Your task to perform on an android device: turn off javascript in the chrome app Image 0: 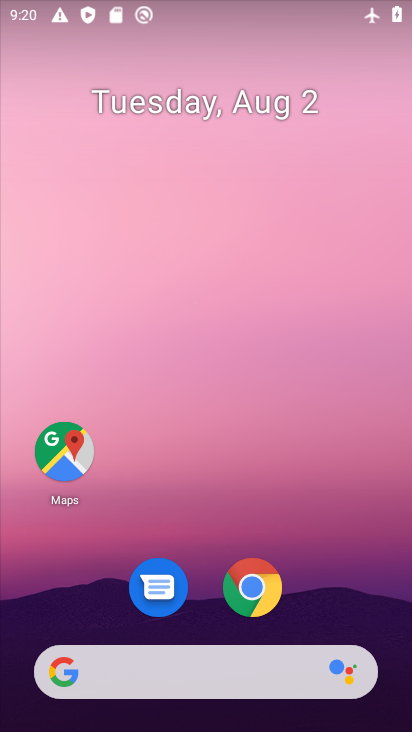
Step 0: click (252, 593)
Your task to perform on an android device: turn off javascript in the chrome app Image 1: 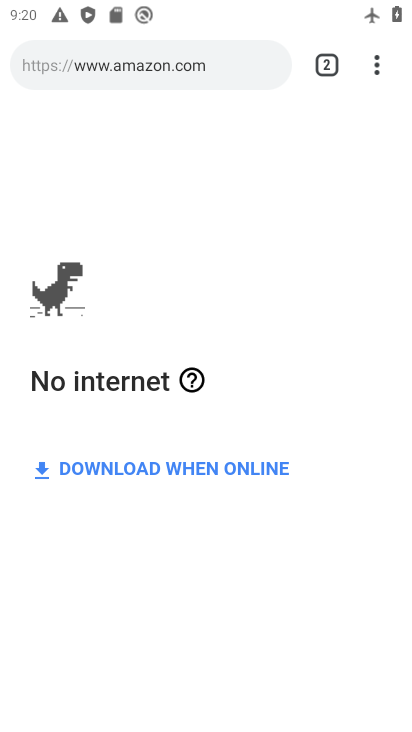
Step 1: click (383, 81)
Your task to perform on an android device: turn off javascript in the chrome app Image 2: 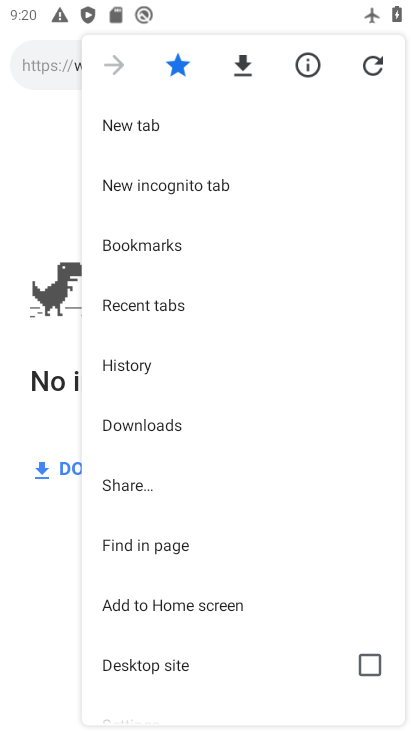
Step 2: drag from (253, 619) to (209, 210)
Your task to perform on an android device: turn off javascript in the chrome app Image 3: 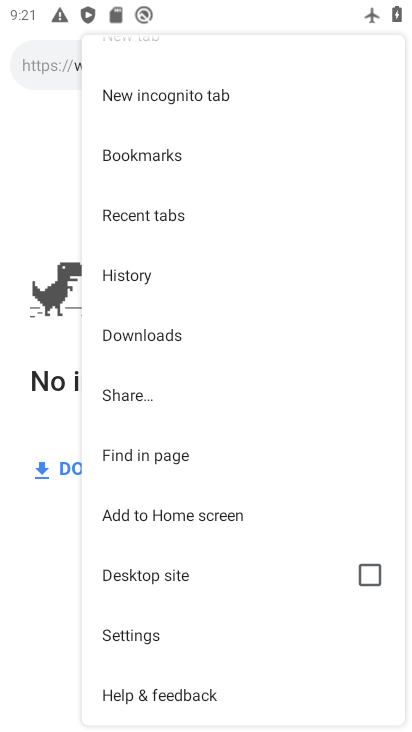
Step 3: click (141, 638)
Your task to perform on an android device: turn off javascript in the chrome app Image 4: 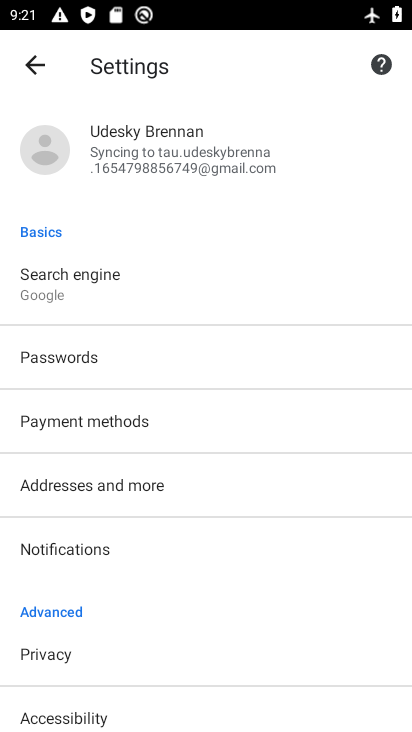
Step 4: drag from (177, 665) to (86, 219)
Your task to perform on an android device: turn off javascript in the chrome app Image 5: 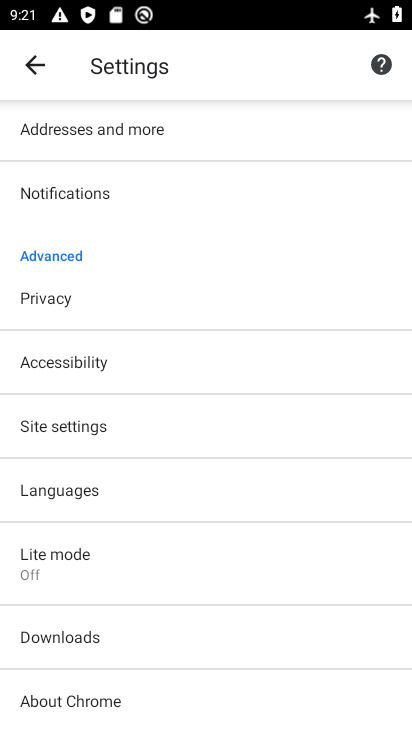
Step 5: click (114, 431)
Your task to perform on an android device: turn off javascript in the chrome app Image 6: 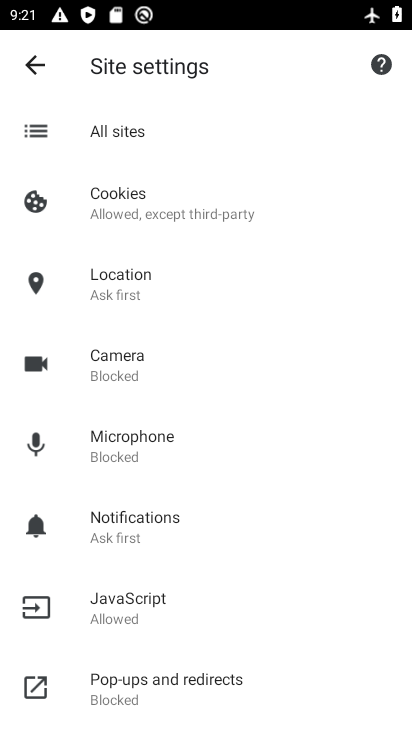
Step 6: click (205, 605)
Your task to perform on an android device: turn off javascript in the chrome app Image 7: 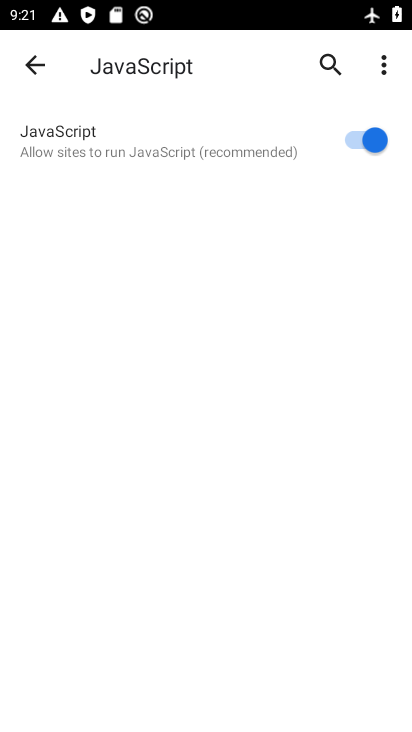
Step 7: click (372, 140)
Your task to perform on an android device: turn off javascript in the chrome app Image 8: 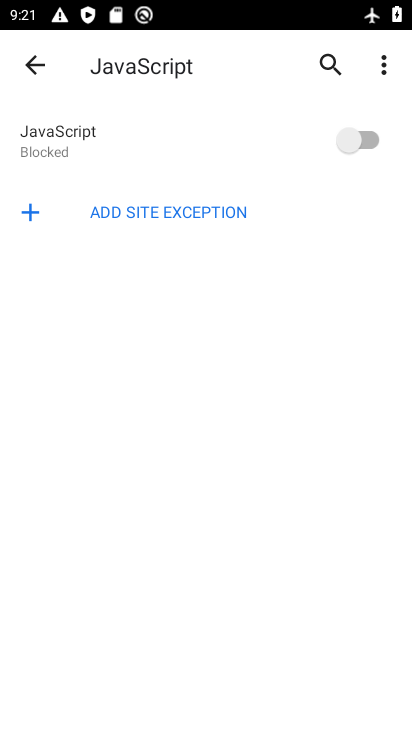
Step 8: task complete